Your task to perform on an android device: change timer sound Image 0: 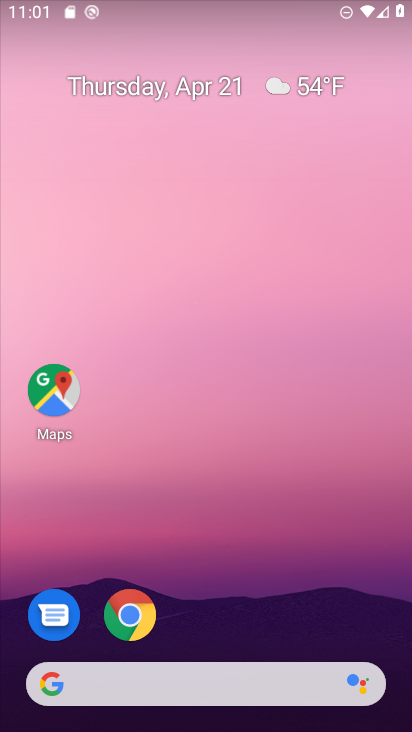
Step 0: drag from (250, 587) to (326, 13)
Your task to perform on an android device: change timer sound Image 1: 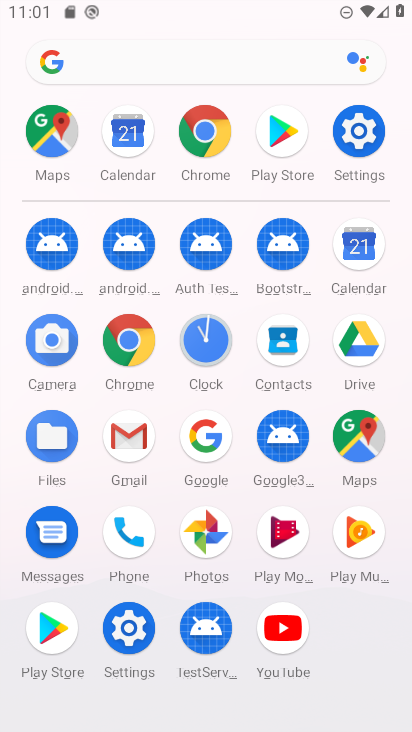
Step 1: click (210, 349)
Your task to perform on an android device: change timer sound Image 2: 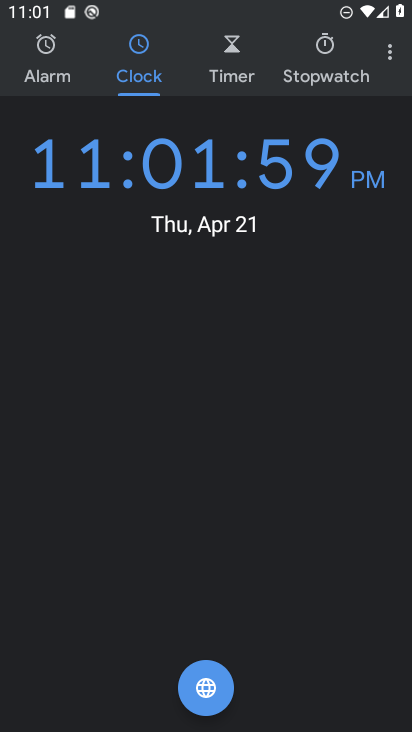
Step 2: click (246, 51)
Your task to perform on an android device: change timer sound Image 3: 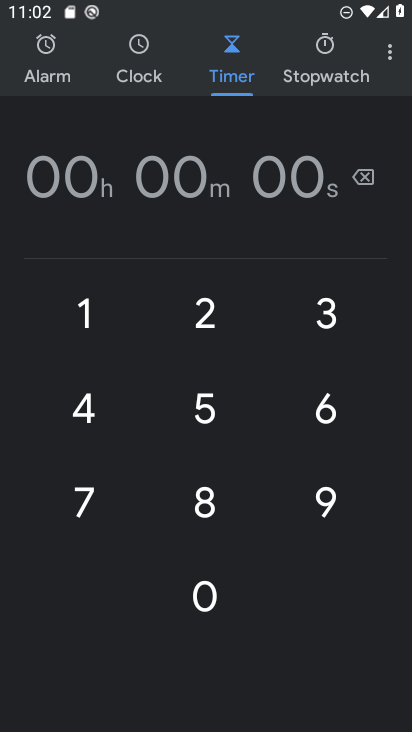
Step 3: click (386, 69)
Your task to perform on an android device: change timer sound Image 4: 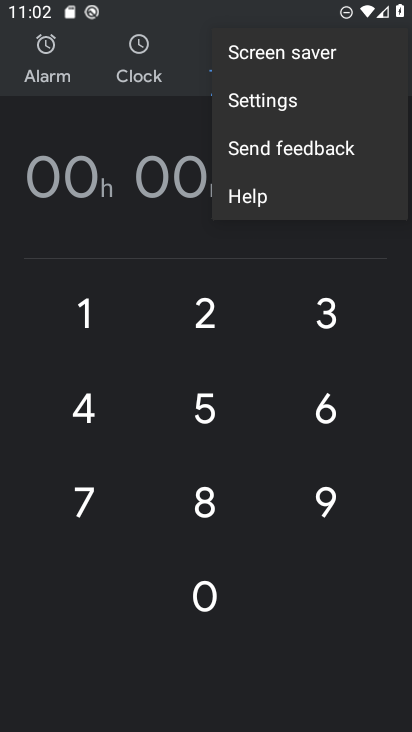
Step 4: click (318, 105)
Your task to perform on an android device: change timer sound Image 5: 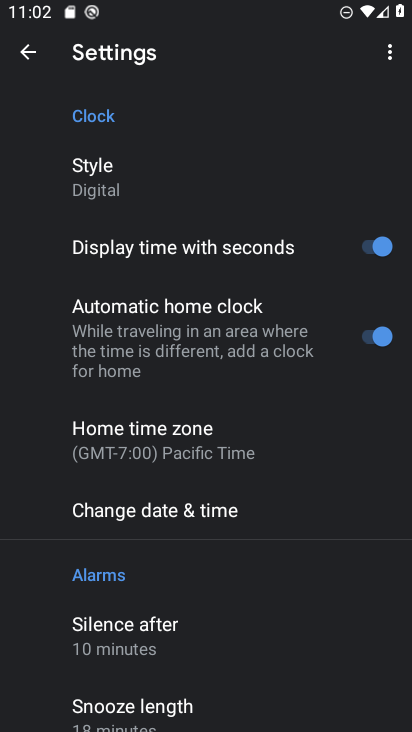
Step 5: drag from (209, 415) to (217, 289)
Your task to perform on an android device: change timer sound Image 6: 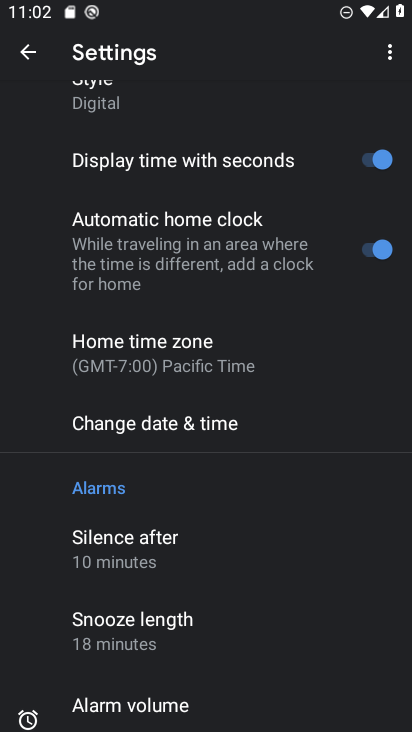
Step 6: drag from (205, 437) to (226, 339)
Your task to perform on an android device: change timer sound Image 7: 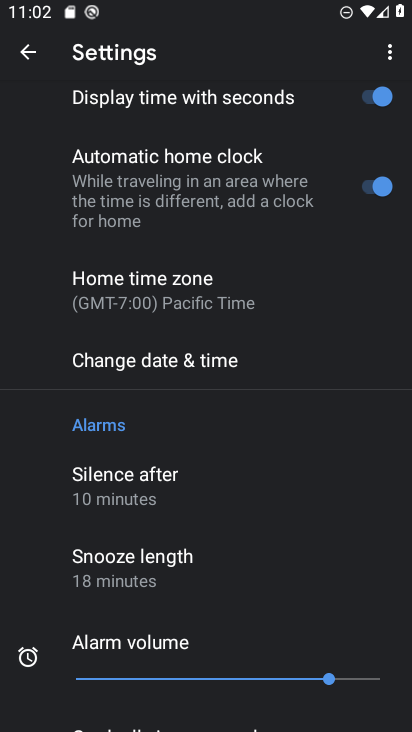
Step 7: drag from (239, 427) to (248, 329)
Your task to perform on an android device: change timer sound Image 8: 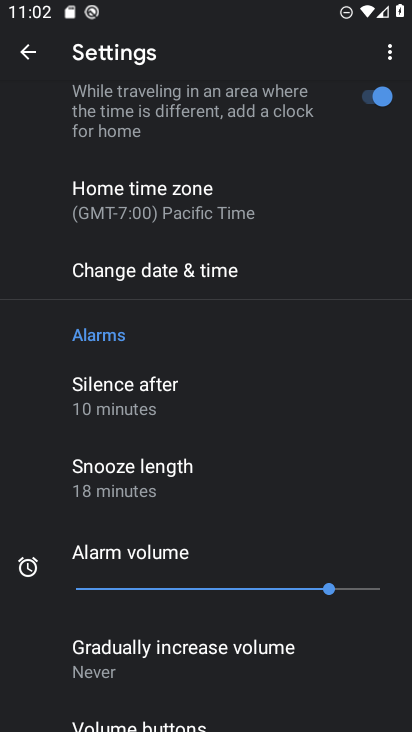
Step 8: drag from (268, 477) to (282, 378)
Your task to perform on an android device: change timer sound Image 9: 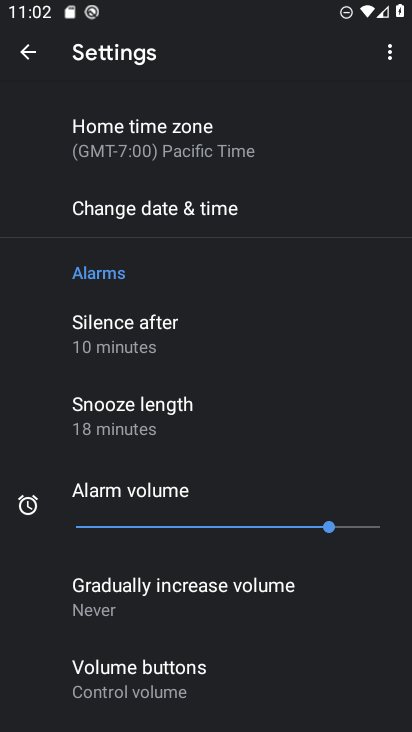
Step 9: drag from (252, 457) to (278, 366)
Your task to perform on an android device: change timer sound Image 10: 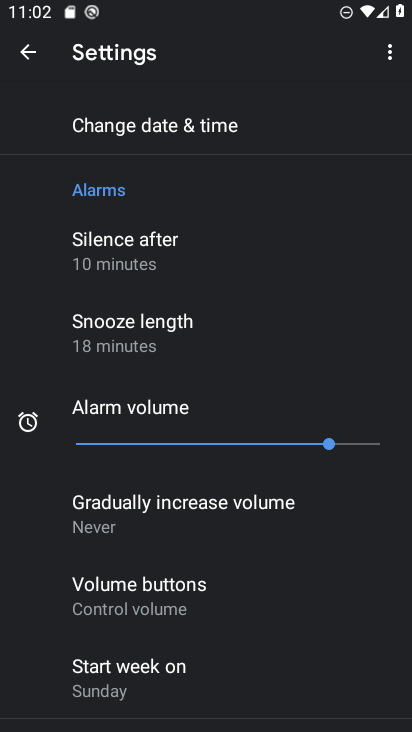
Step 10: drag from (259, 435) to (299, 291)
Your task to perform on an android device: change timer sound Image 11: 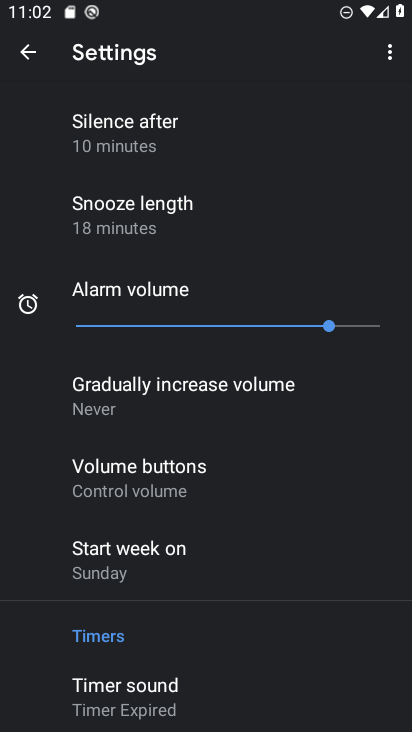
Step 11: drag from (244, 468) to (266, 333)
Your task to perform on an android device: change timer sound Image 12: 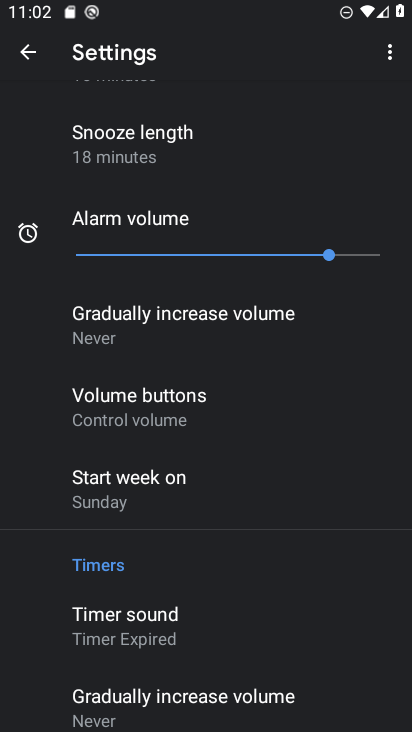
Step 12: drag from (258, 391) to (271, 277)
Your task to perform on an android device: change timer sound Image 13: 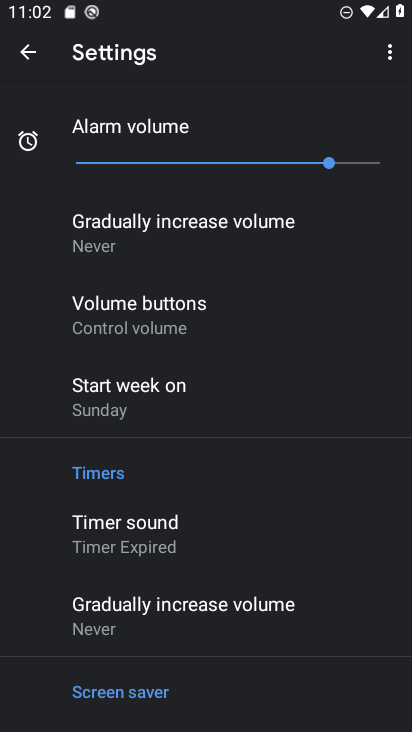
Step 13: drag from (311, 437) to (304, 311)
Your task to perform on an android device: change timer sound Image 14: 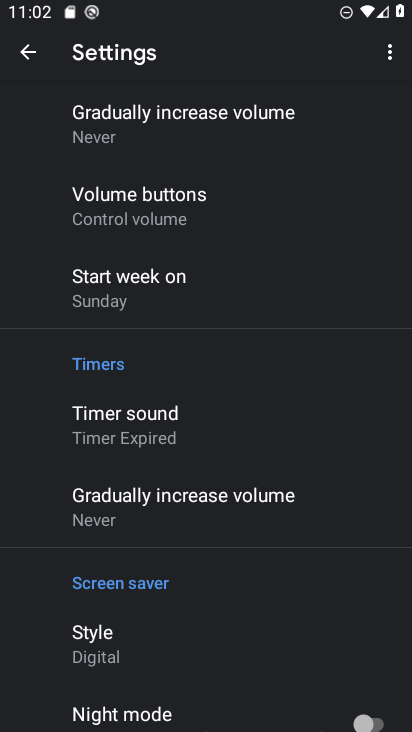
Step 14: click (221, 420)
Your task to perform on an android device: change timer sound Image 15: 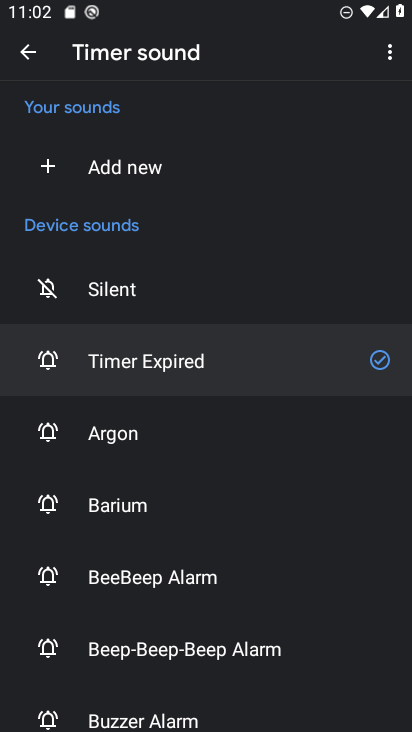
Step 15: click (206, 428)
Your task to perform on an android device: change timer sound Image 16: 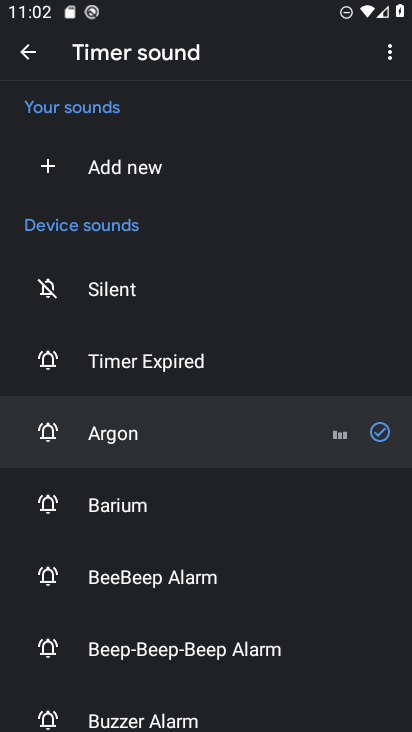
Step 16: task complete